Your task to perform on an android device: Go to battery settings Image 0: 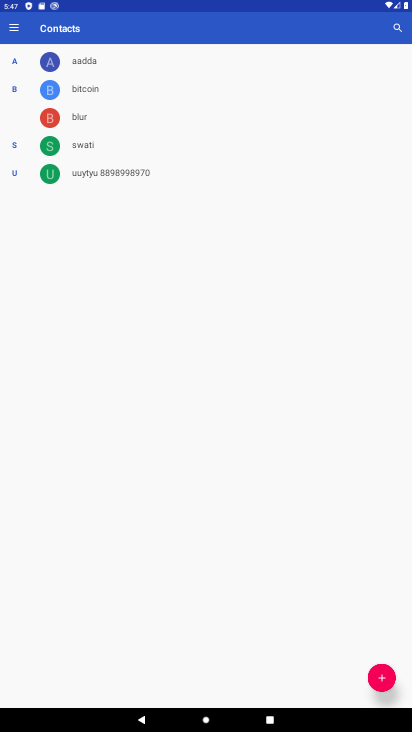
Step 0: press home button
Your task to perform on an android device: Go to battery settings Image 1: 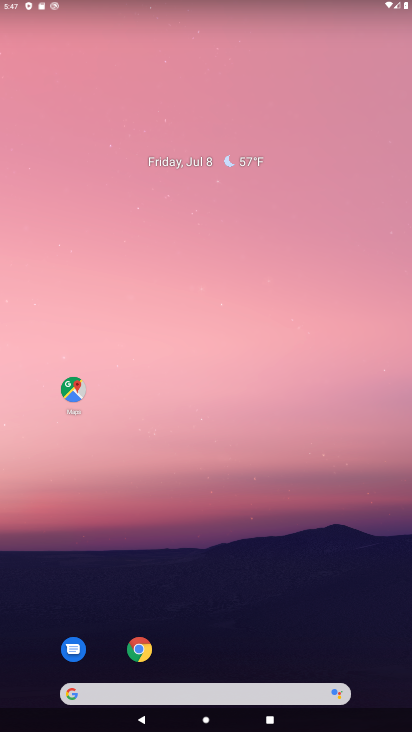
Step 1: drag from (267, 712) to (241, 37)
Your task to perform on an android device: Go to battery settings Image 2: 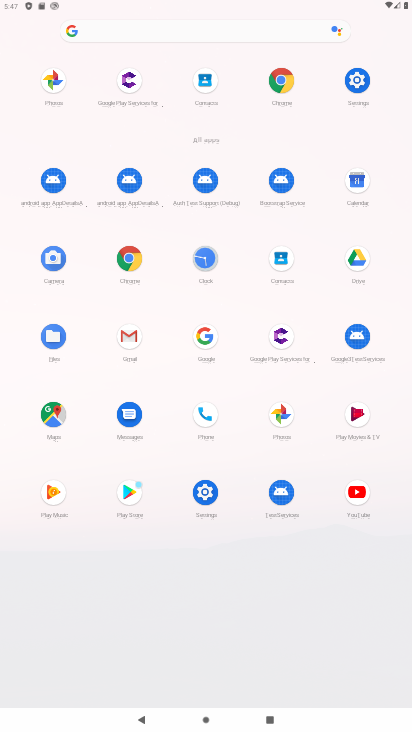
Step 2: click (342, 75)
Your task to perform on an android device: Go to battery settings Image 3: 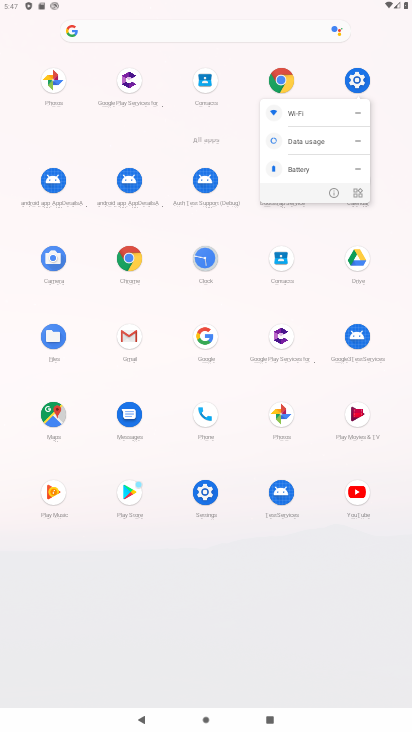
Step 3: click (359, 76)
Your task to perform on an android device: Go to battery settings Image 4: 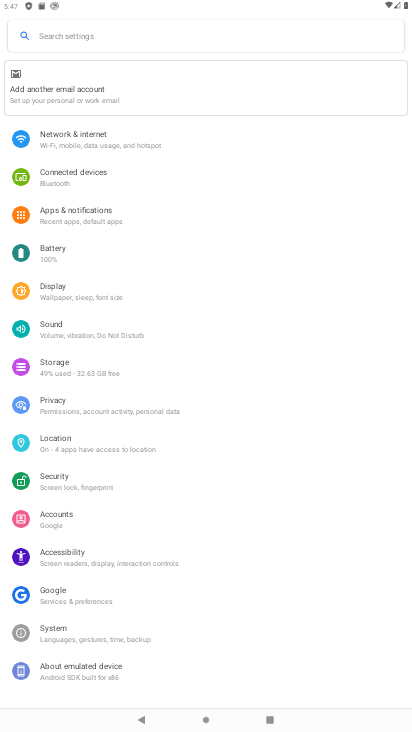
Step 4: click (53, 249)
Your task to perform on an android device: Go to battery settings Image 5: 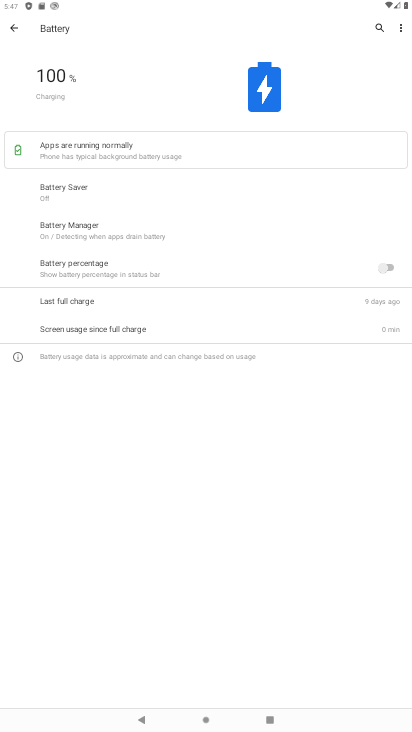
Step 5: task complete